Your task to perform on an android device: Go to ESPN.com Image 0: 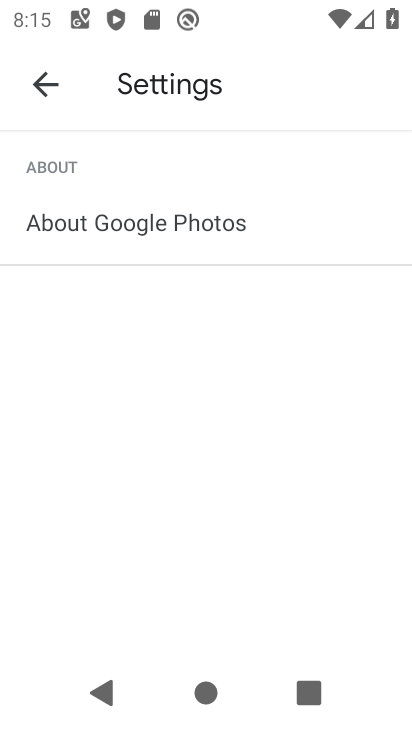
Step 0: press home button
Your task to perform on an android device: Go to ESPN.com Image 1: 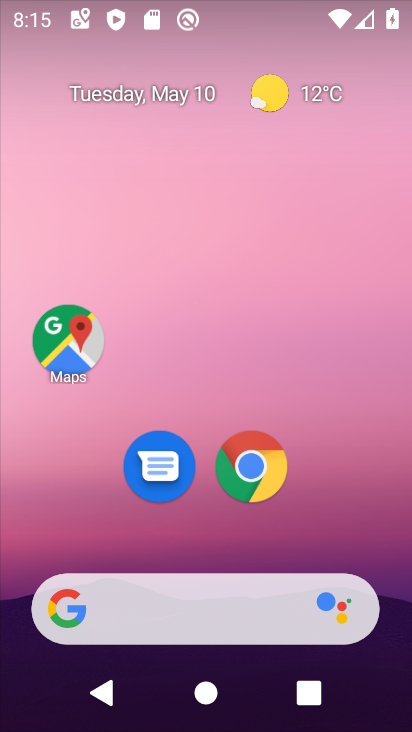
Step 1: click (256, 464)
Your task to perform on an android device: Go to ESPN.com Image 2: 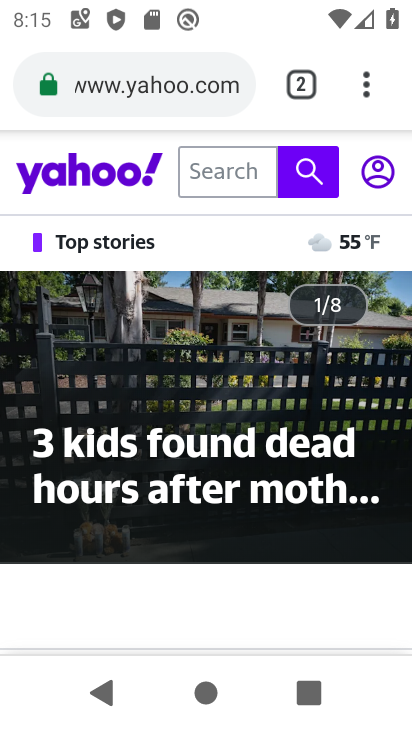
Step 2: click (169, 85)
Your task to perform on an android device: Go to ESPN.com Image 3: 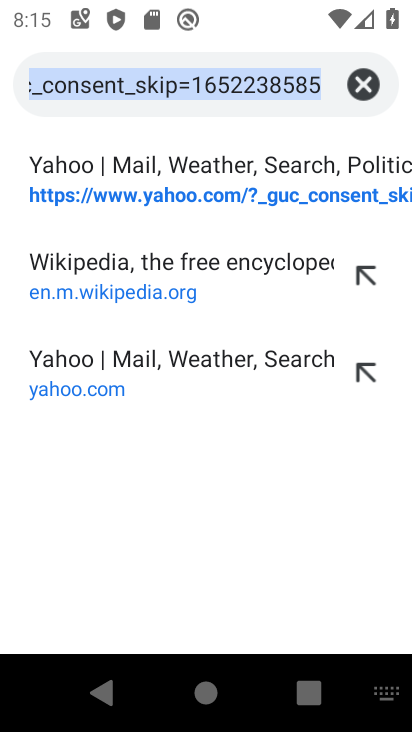
Step 3: type "ESPN.com"
Your task to perform on an android device: Go to ESPN.com Image 4: 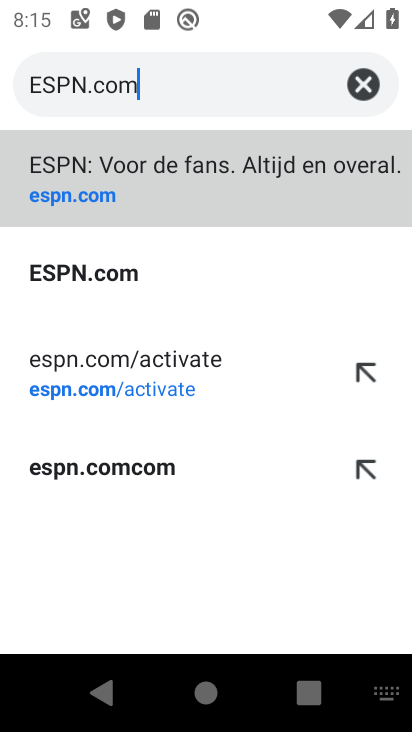
Step 4: click (175, 261)
Your task to perform on an android device: Go to ESPN.com Image 5: 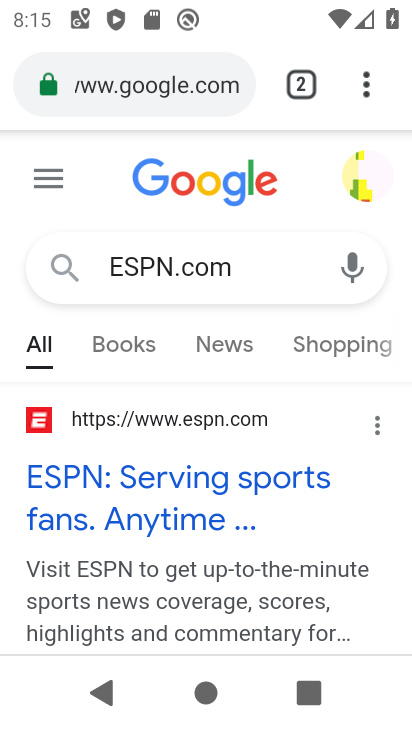
Step 5: task complete